Your task to perform on an android device: Search for vegetarian restaurants on Maps Image 0: 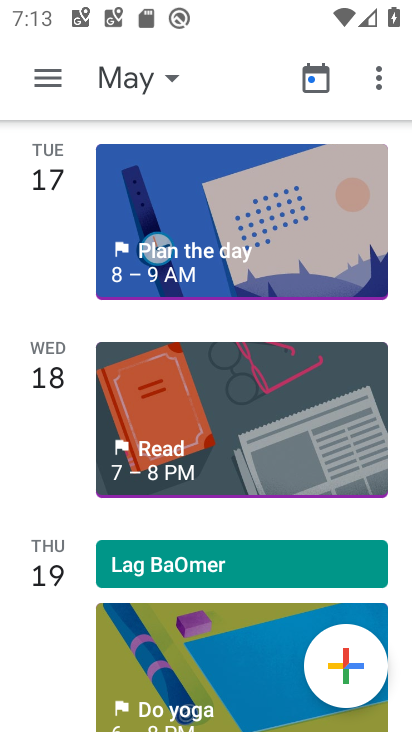
Step 0: press home button
Your task to perform on an android device: Search for vegetarian restaurants on Maps Image 1: 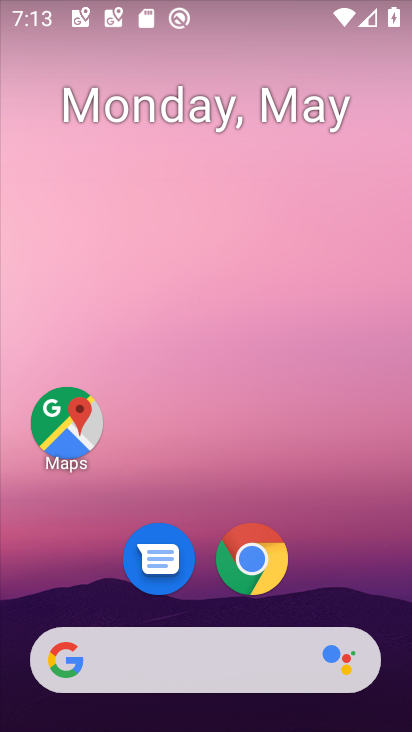
Step 1: drag from (394, 627) to (294, 52)
Your task to perform on an android device: Search for vegetarian restaurants on Maps Image 2: 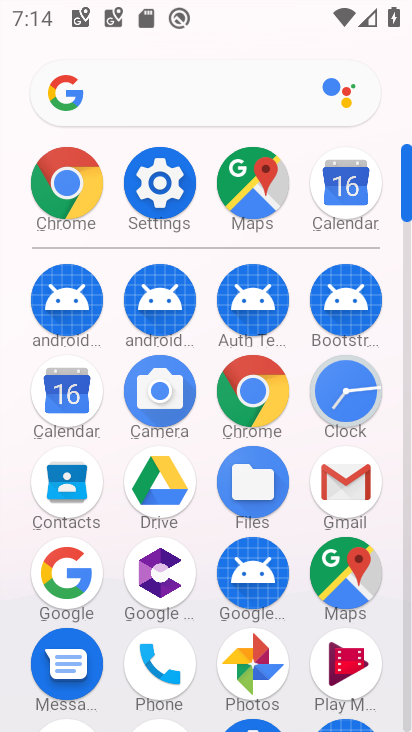
Step 2: click (253, 184)
Your task to perform on an android device: Search for vegetarian restaurants on Maps Image 3: 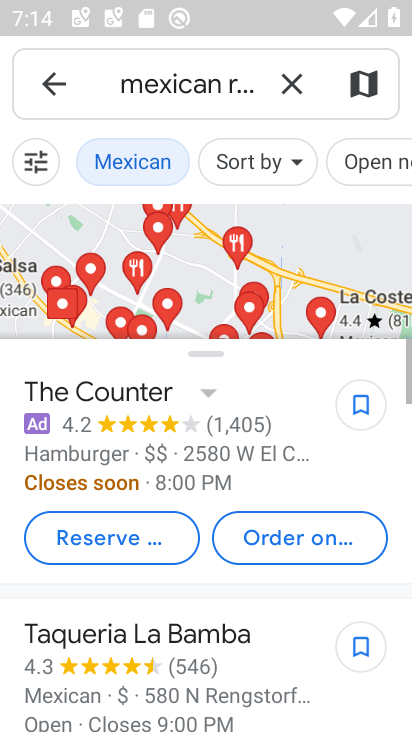
Step 3: click (290, 79)
Your task to perform on an android device: Search for vegetarian restaurants on Maps Image 4: 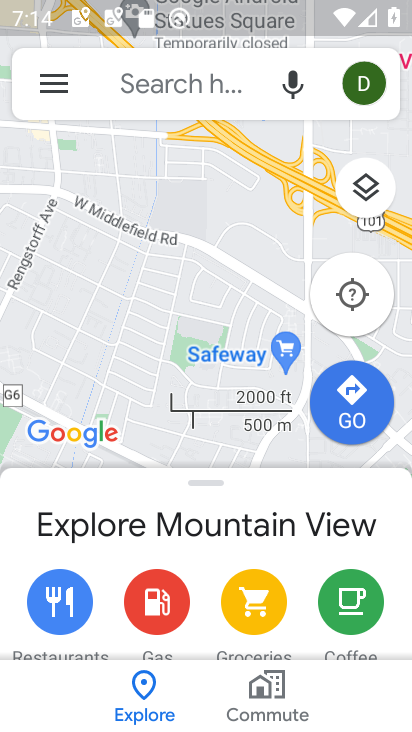
Step 4: click (159, 87)
Your task to perform on an android device: Search for vegetarian restaurants on Maps Image 5: 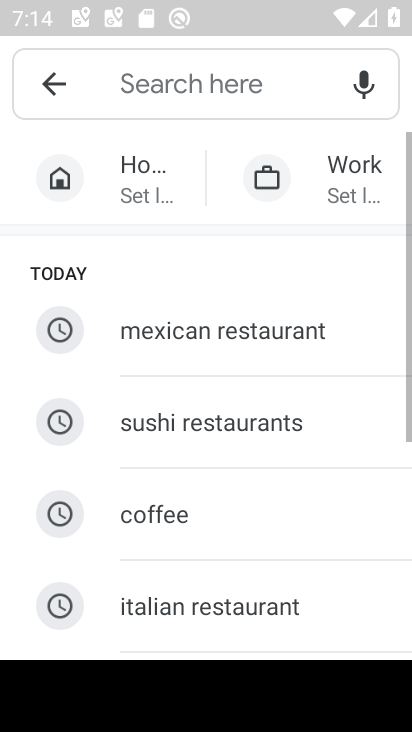
Step 5: drag from (231, 601) to (222, 231)
Your task to perform on an android device: Search for vegetarian restaurants on Maps Image 6: 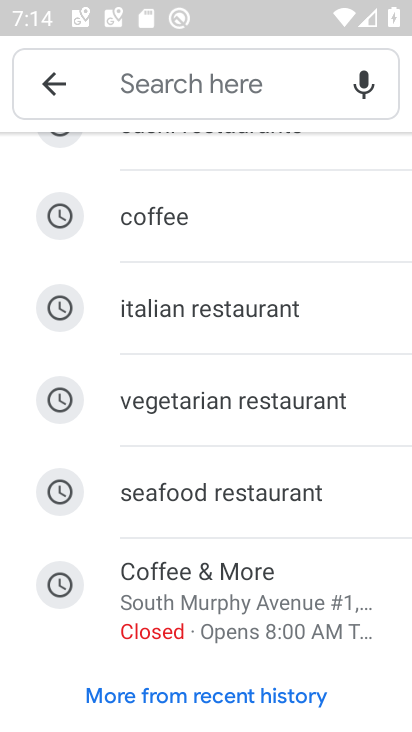
Step 6: click (216, 411)
Your task to perform on an android device: Search for vegetarian restaurants on Maps Image 7: 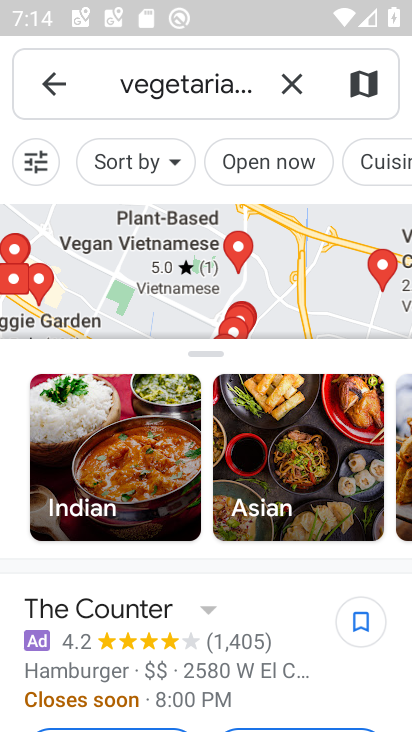
Step 7: task complete